Your task to perform on an android device: allow cookies in the chrome app Image 0: 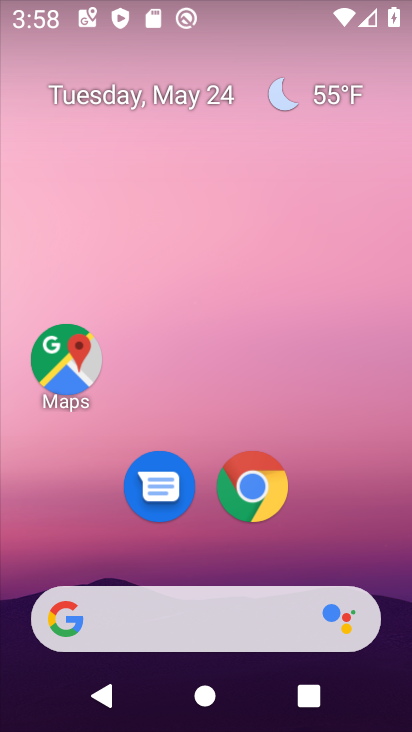
Step 0: click (241, 479)
Your task to perform on an android device: allow cookies in the chrome app Image 1: 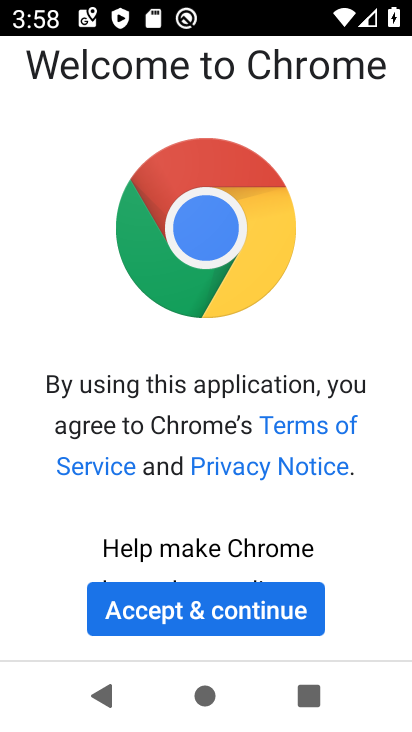
Step 1: click (162, 607)
Your task to perform on an android device: allow cookies in the chrome app Image 2: 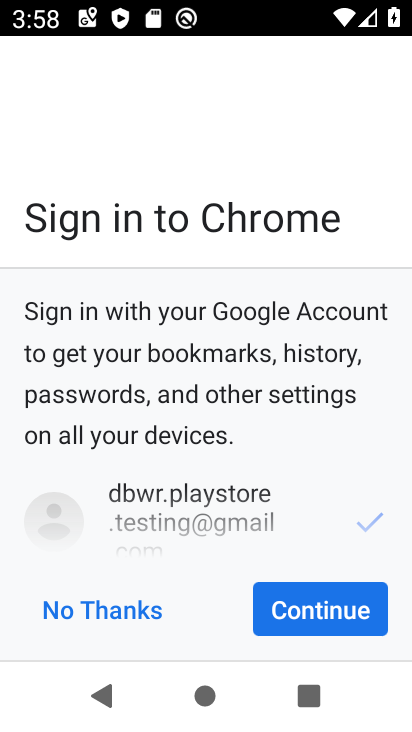
Step 2: click (325, 598)
Your task to perform on an android device: allow cookies in the chrome app Image 3: 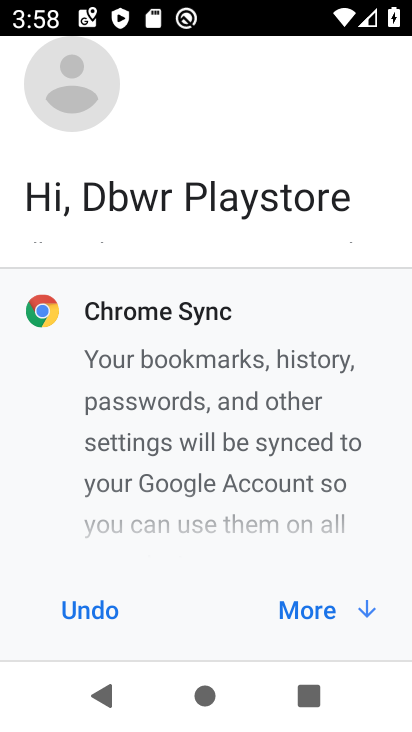
Step 3: click (292, 611)
Your task to perform on an android device: allow cookies in the chrome app Image 4: 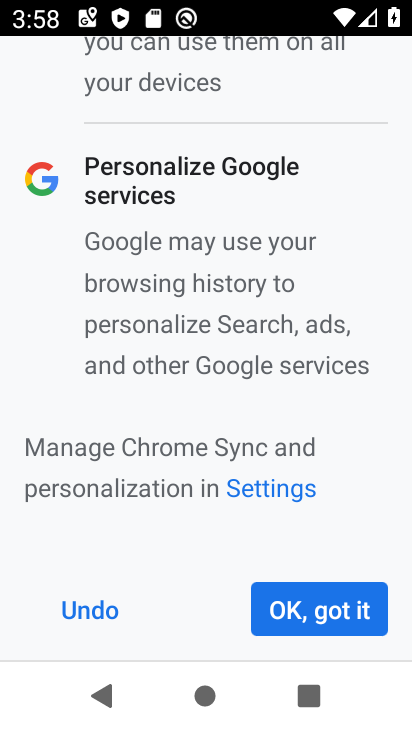
Step 4: click (292, 611)
Your task to perform on an android device: allow cookies in the chrome app Image 5: 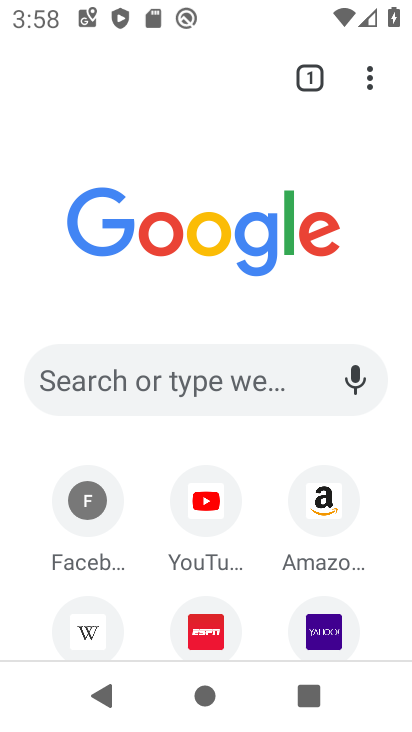
Step 5: click (403, 64)
Your task to perform on an android device: allow cookies in the chrome app Image 6: 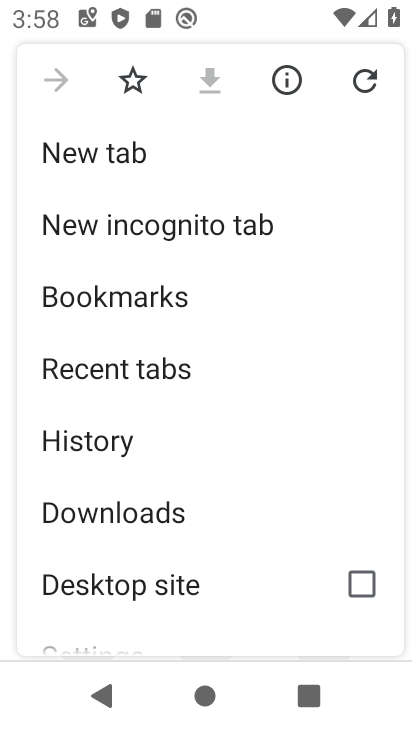
Step 6: drag from (207, 468) to (134, 194)
Your task to perform on an android device: allow cookies in the chrome app Image 7: 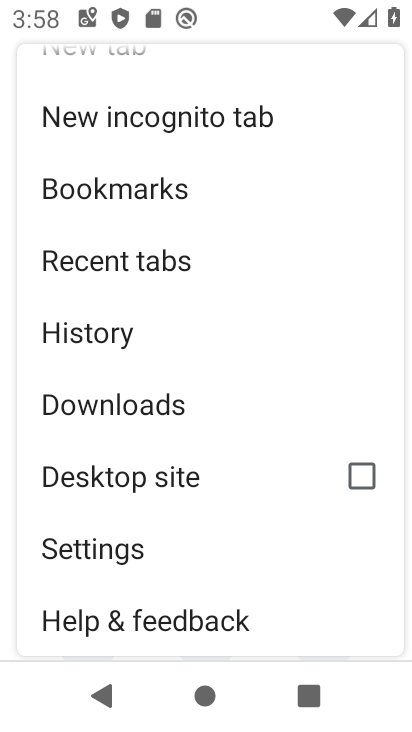
Step 7: click (247, 542)
Your task to perform on an android device: allow cookies in the chrome app Image 8: 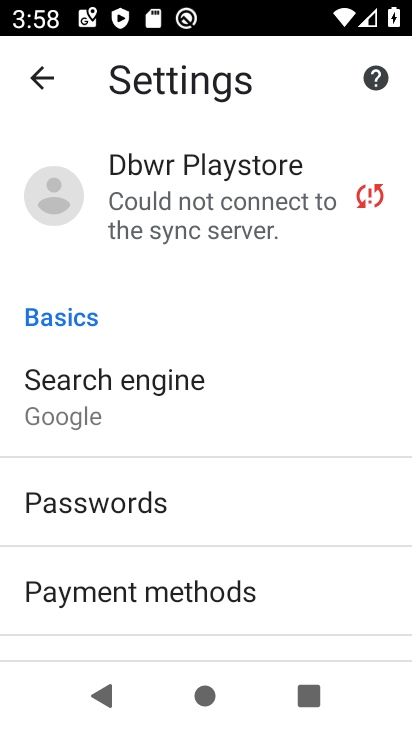
Step 8: drag from (273, 583) to (166, 324)
Your task to perform on an android device: allow cookies in the chrome app Image 9: 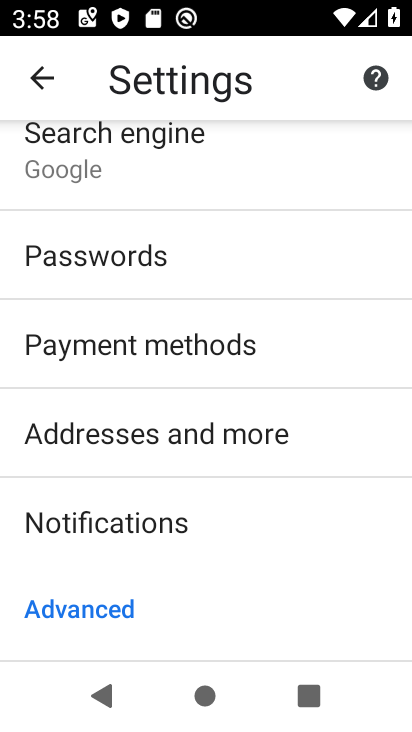
Step 9: drag from (241, 527) to (162, 277)
Your task to perform on an android device: allow cookies in the chrome app Image 10: 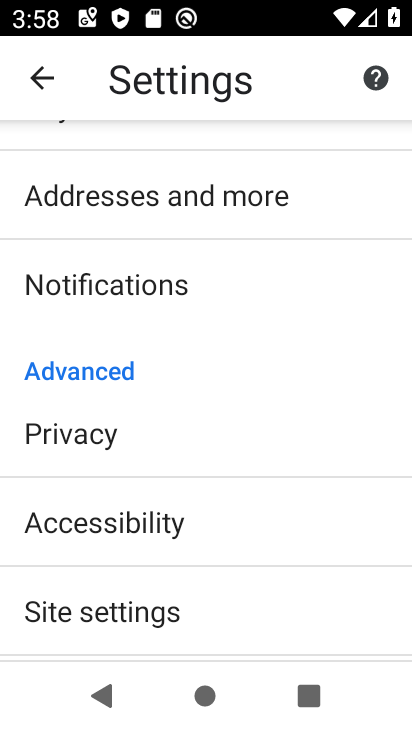
Step 10: drag from (249, 498) to (212, 295)
Your task to perform on an android device: allow cookies in the chrome app Image 11: 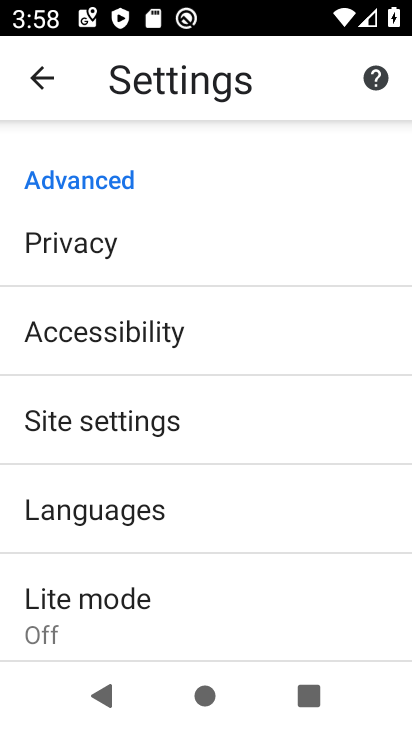
Step 11: click (226, 233)
Your task to perform on an android device: allow cookies in the chrome app Image 12: 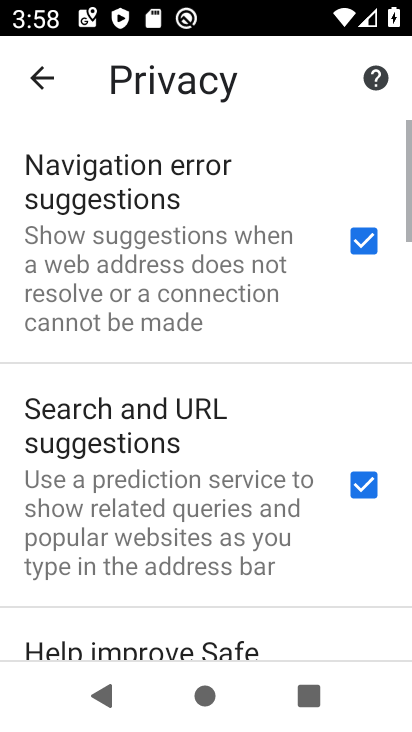
Step 12: drag from (149, 476) to (65, 146)
Your task to perform on an android device: allow cookies in the chrome app Image 13: 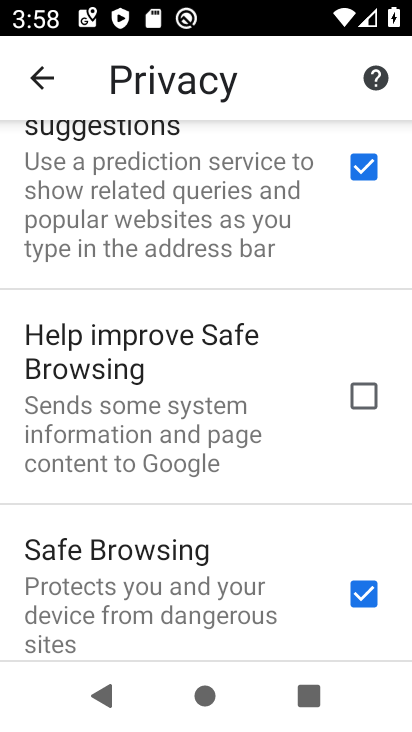
Step 13: press back button
Your task to perform on an android device: allow cookies in the chrome app Image 14: 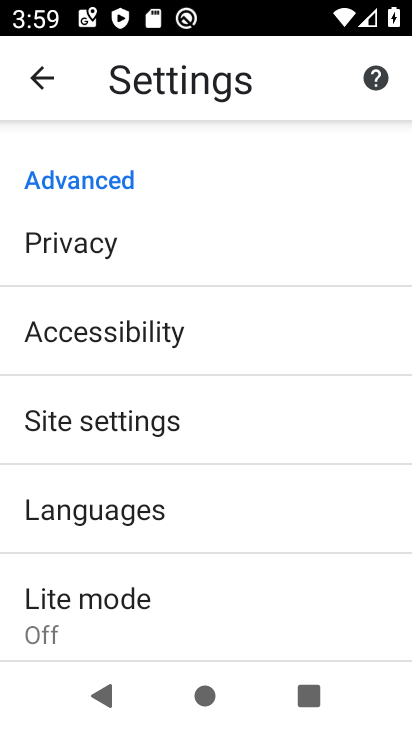
Step 14: click (215, 435)
Your task to perform on an android device: allow cookies in the chrome app Image 15: 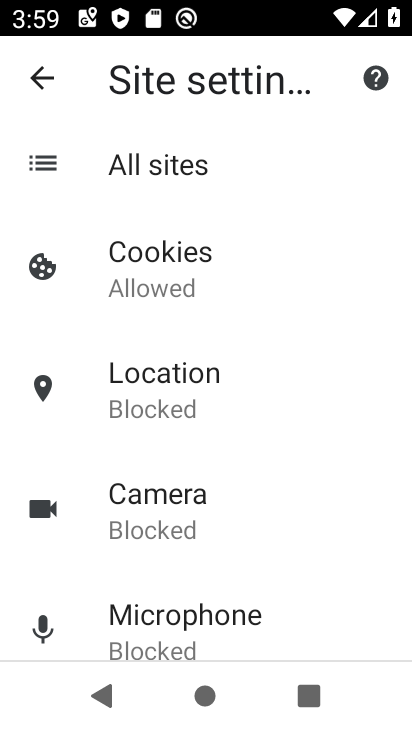
Step 15: click (187, 293)
Your task to perform on an android device: allow cookies in the chrome app Image 16: 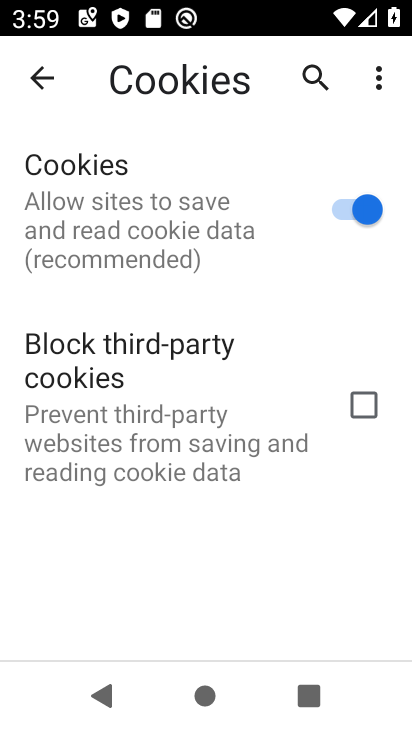
Step 16: task complete